Your task to perform on an android device: Open Reddit.com Image 0: 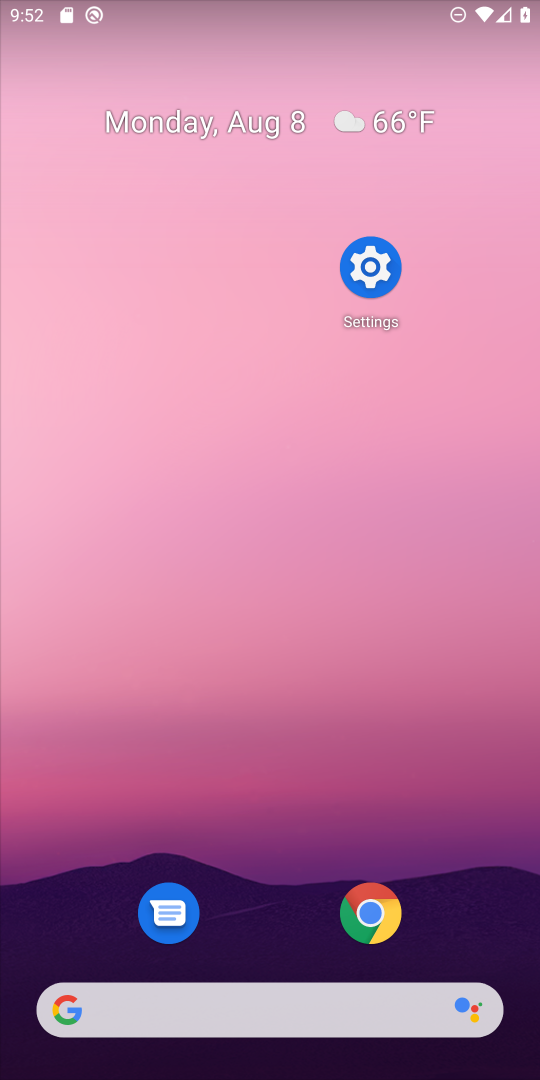
Step 0: click (369, 914)
Your task to perform on an android device: Open Reddit.com Image 1: 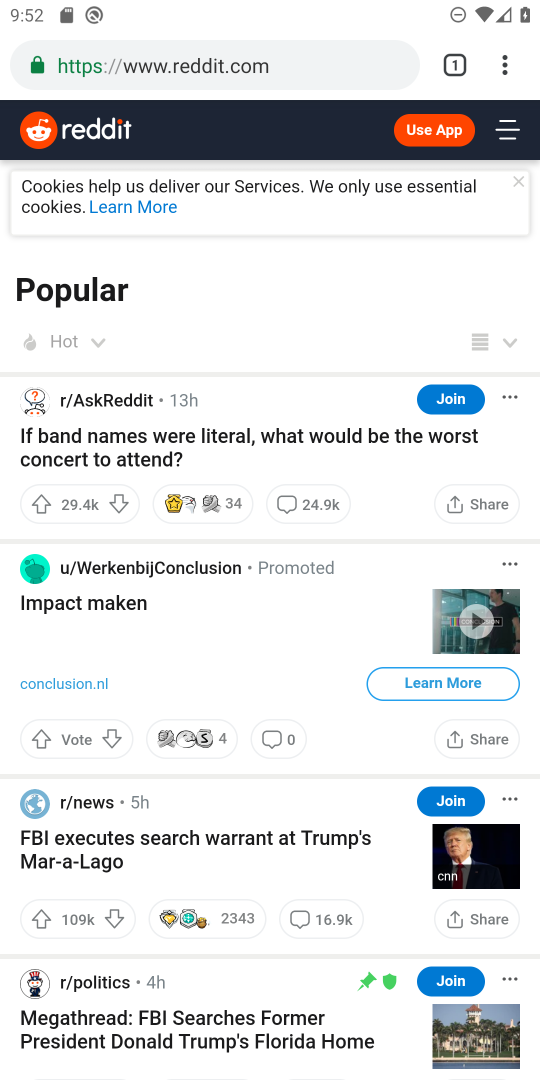
Step 1: task complete